Your task to perform on an android device: toggle priority inbox in the gmail app Image 0: 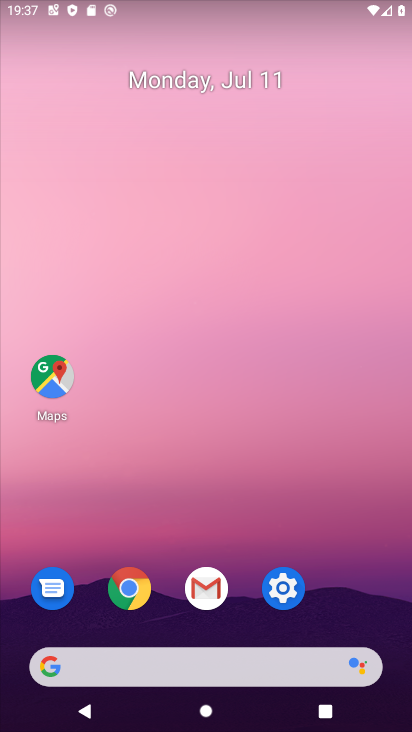
Step 0: click (211, 601)
Your task to perform on an android device: toggle priority inbox in the gmail app Image 1: 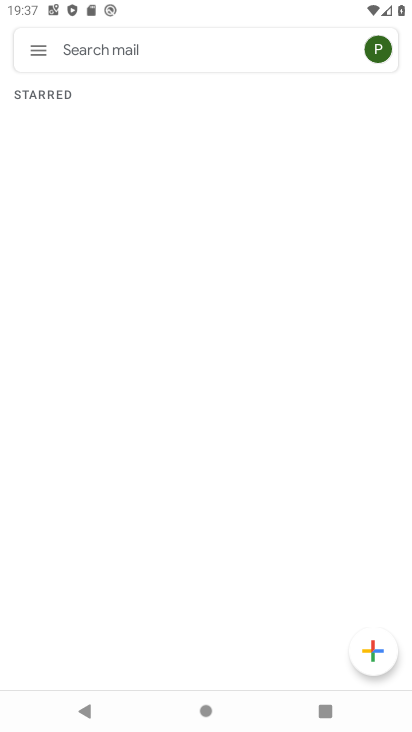
Step 1: click (49, 55)
Your task to perform on an android device: toggle priority inbox in the gmail app Image 2: 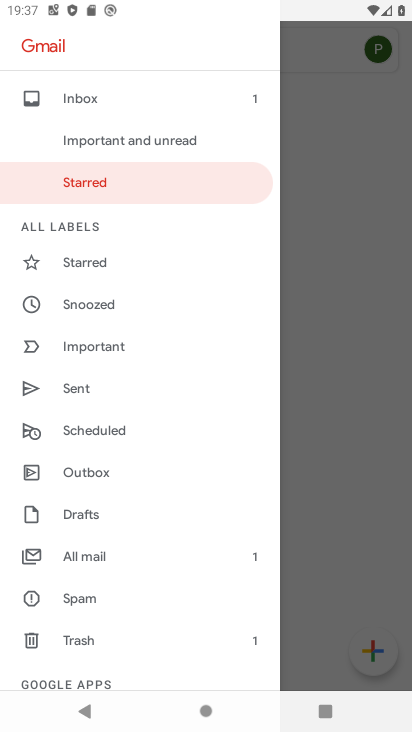
Step 2: drag from (89, 646) to (149, 491)
Your task to perform on an android device: toggle priority inbox in the gmail app Image 3: 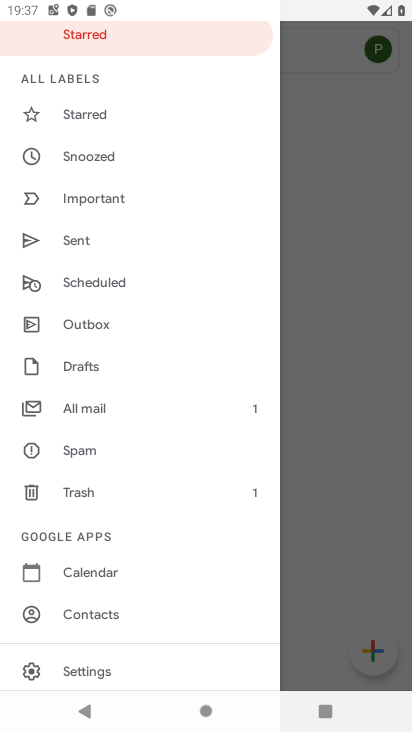
Step 3: click (70, 666)
Your task to perform on an android device: toggle priority inbox in the gmail app Image 4: 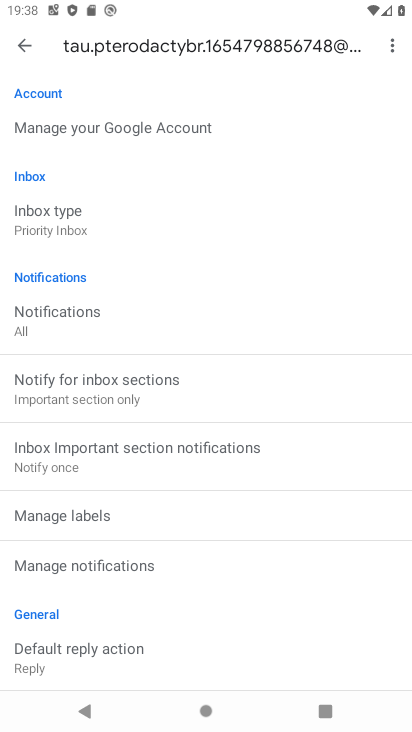
Step 4: click (60, 215)
Your task to perform on an android device: toggle priority inbox in the gmail app Image 5: 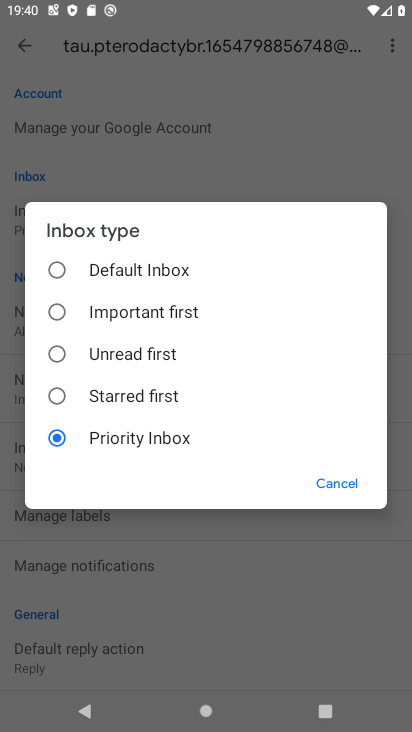
Step 5: task complete